Your task to perform on an android device: Open Google Chrome Image 0: 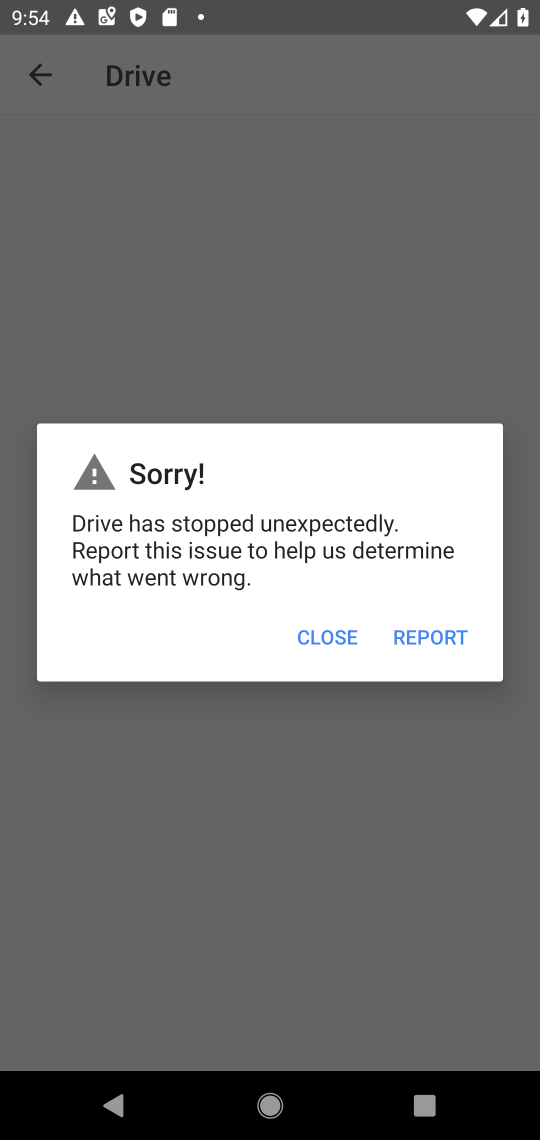
Step 0: press home button
Your task to perform on an android device: Open Google Chrome Image 1: 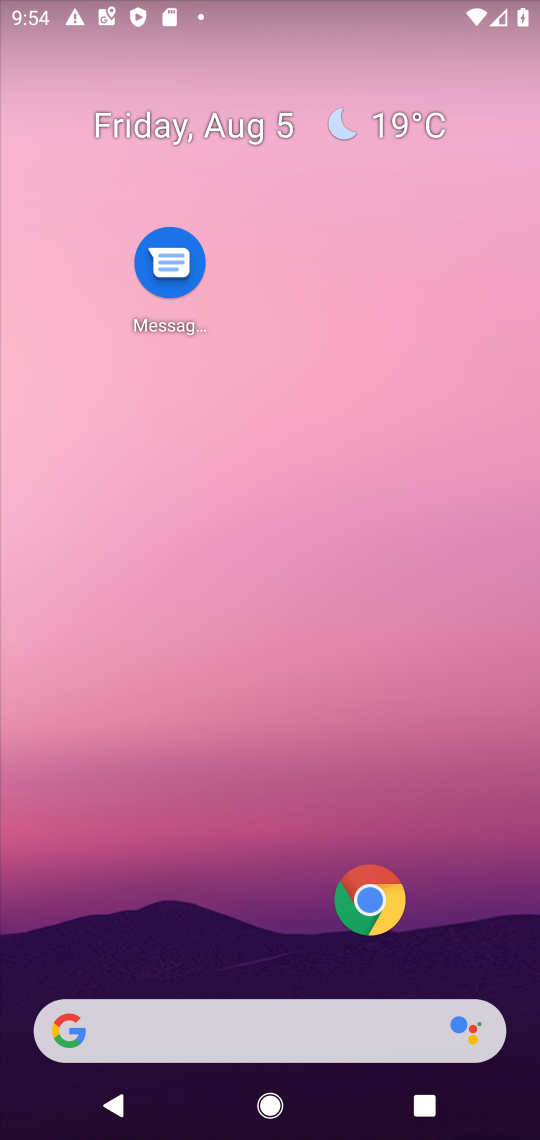
Step 1: drag from (245, 962) to (221, 1)
Your task to perform on an android device: Open Google Chrome Image 2: 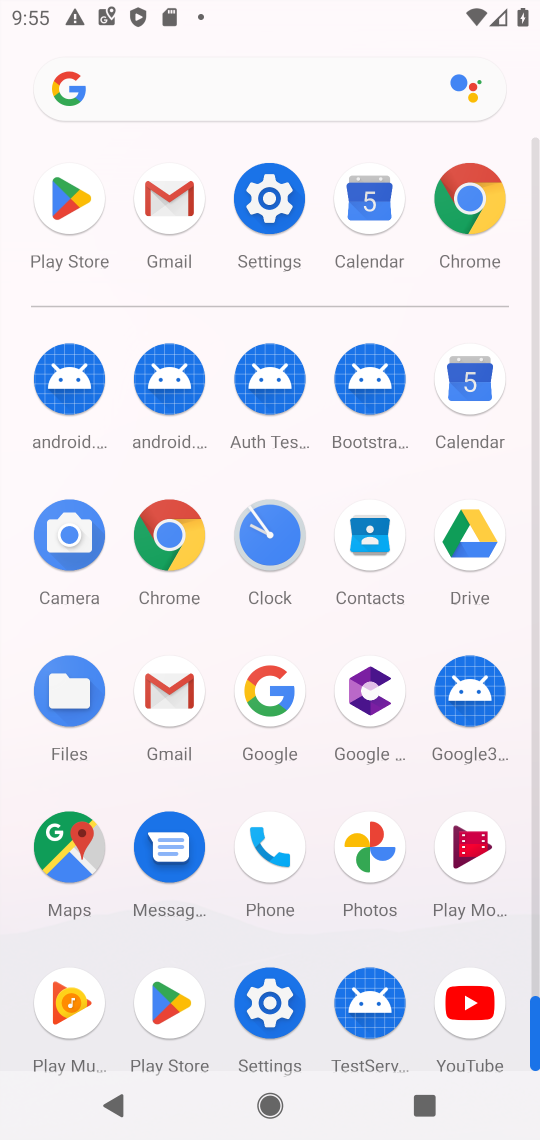
Step 2: click (175, 533)
Your task to perform on an android device: Open Google Chrome Image 3: 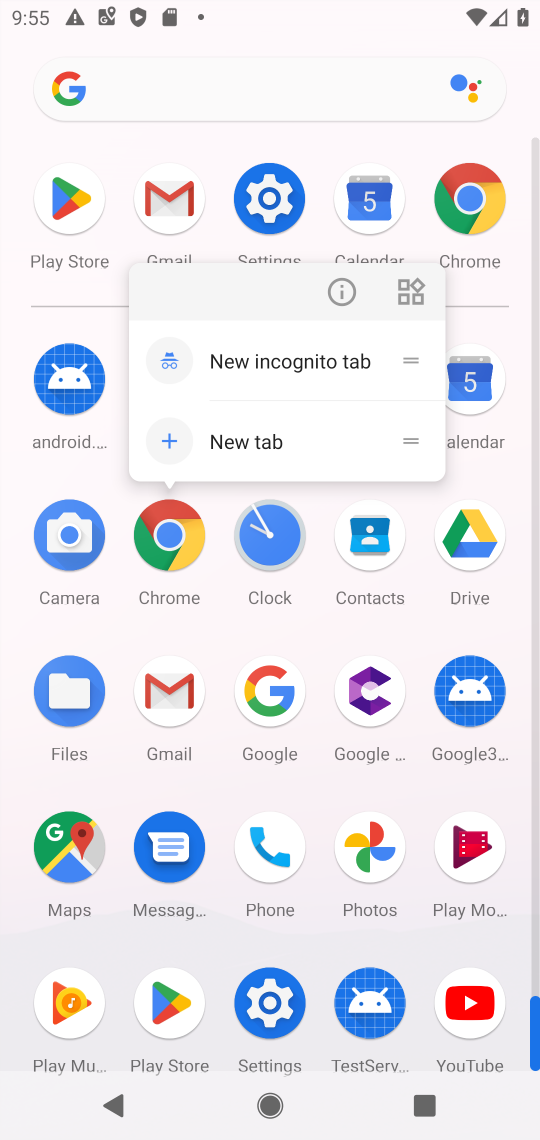
Step 3: click (180, 539)
Your task to perform on an android device: Open Google Chrome Image 4: 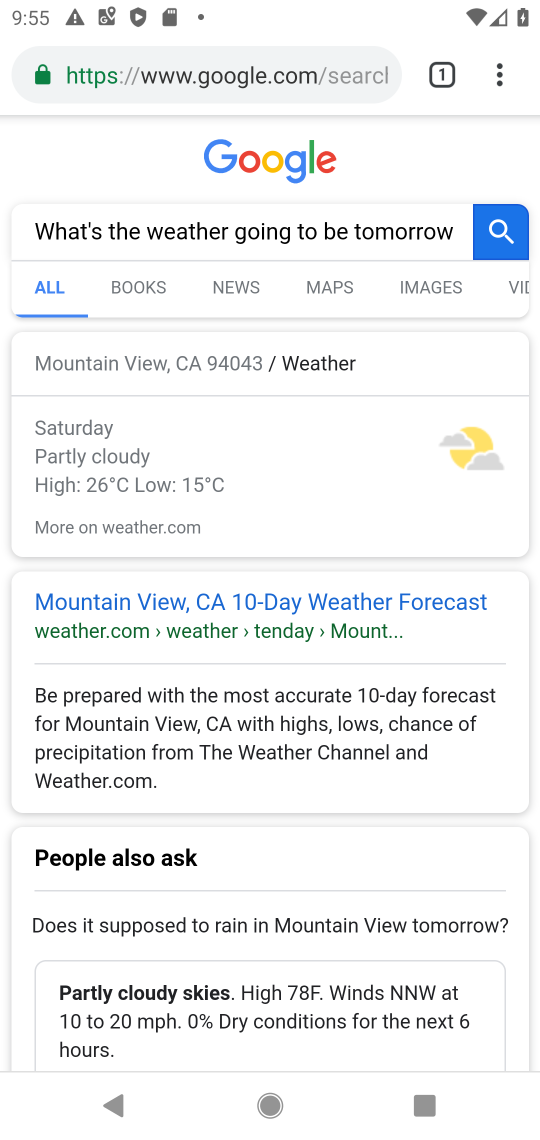
Step 4: task complete